Your task to perform on an android device: add a contact Image 0: 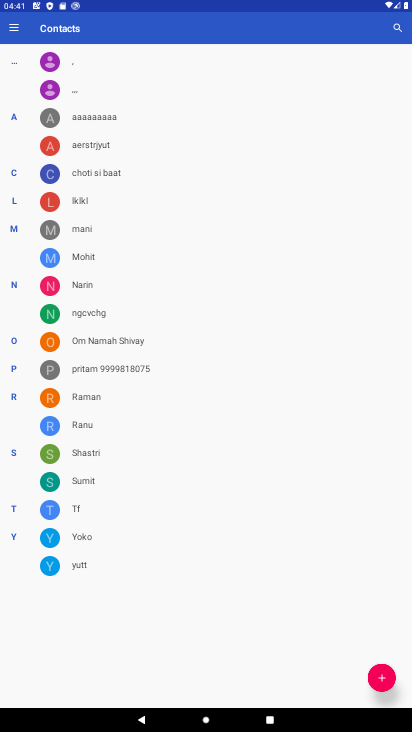
Step 0: click (381, 677)
Your task to perform on an android device: add a contact Image 1: 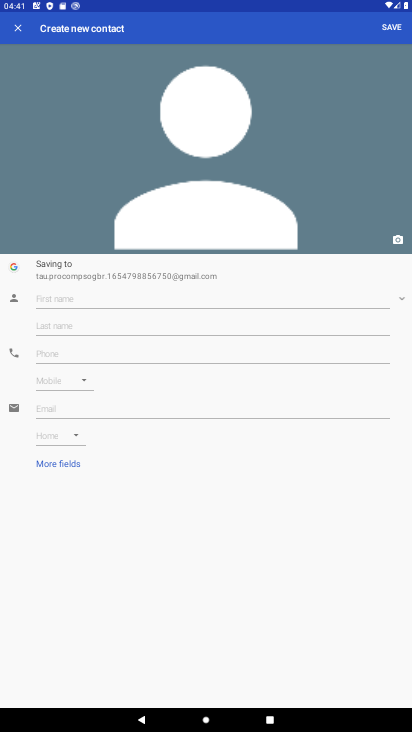
Step 1: click (96, 298)
Your task to perform on an android device: add a contact Image 2: 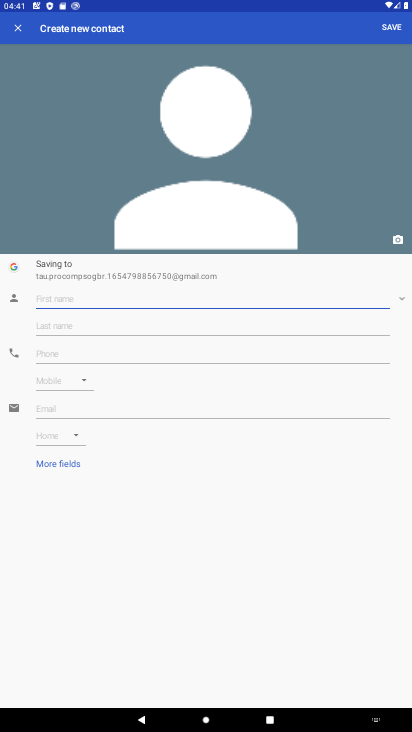
Step 2: type "iuyhgfdxz"
Your task to perform on an android device: add a contact Image 3: 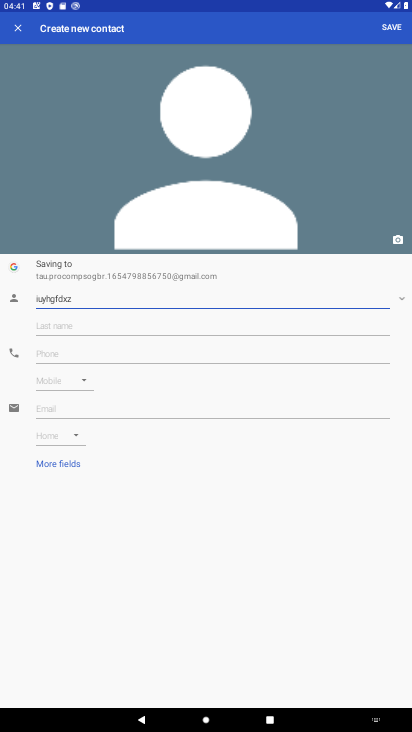
Step 3: click (83, 345)
Your task to perform on an android device: add a contact Image 4: 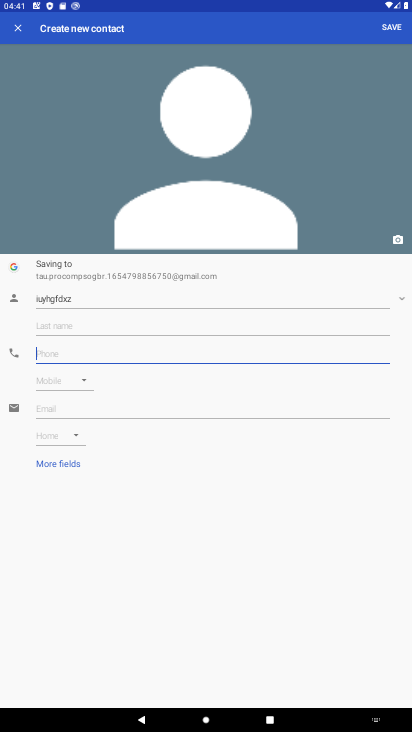
Step 4: type "123456789"
Your task to perform on an android device: add a contact Image 5: 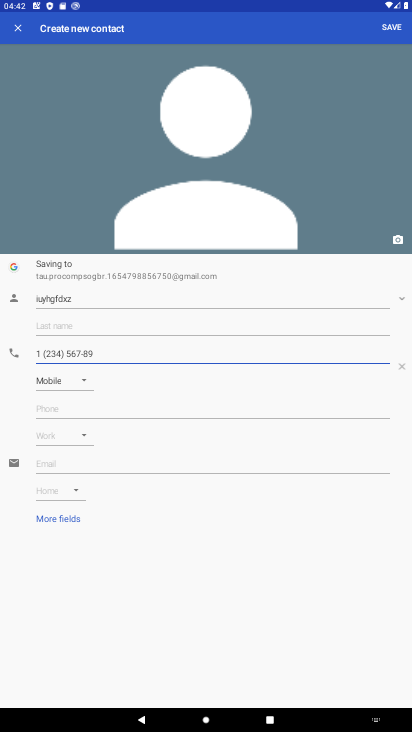
Step 5: click (383, 36)
Your task to perform on an android device: add a contact Image 6: 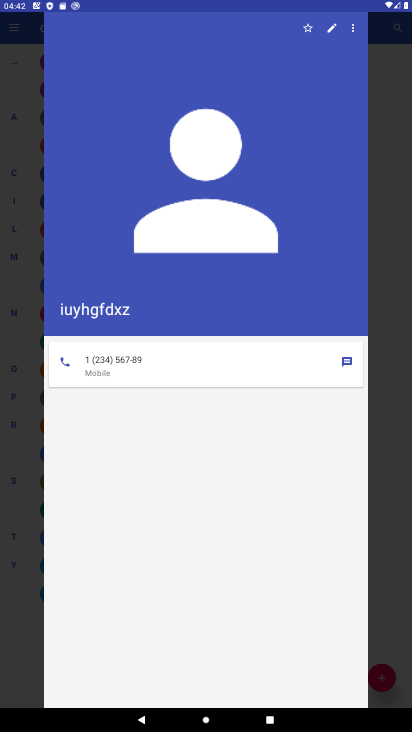
Step 6: task complete